Your task to perform on an android device: open chrome and create a bookmark for the current page Image 0: 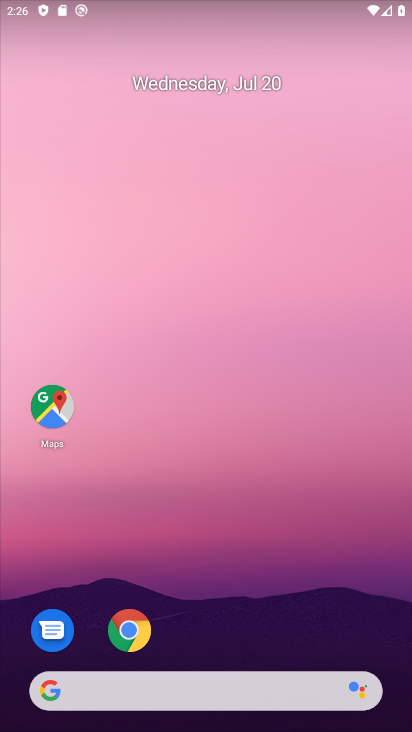
Step 0: click (139, 619)
Your task to perform on an android device: open chrome and create a bookmark for the current page Image 1: 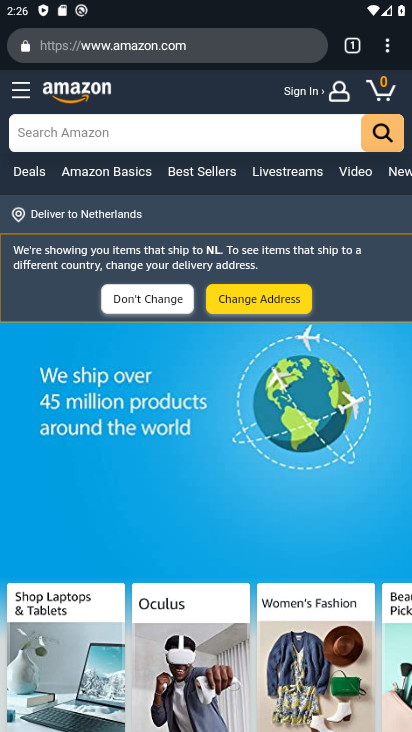
Step 1: click (391, 47)
Your task to perform on an android device: open chrome and create a bookmark for the current page Image 2: 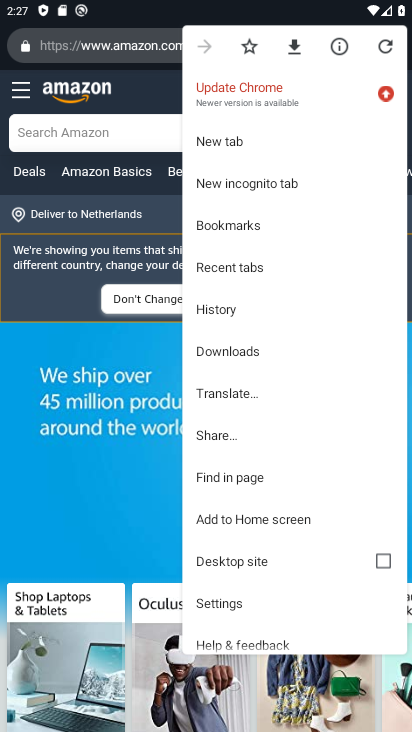
Step 2: click (258, 42)
Your task to perform on an android device: open chrome and create a bookmark for the current page Image 3: 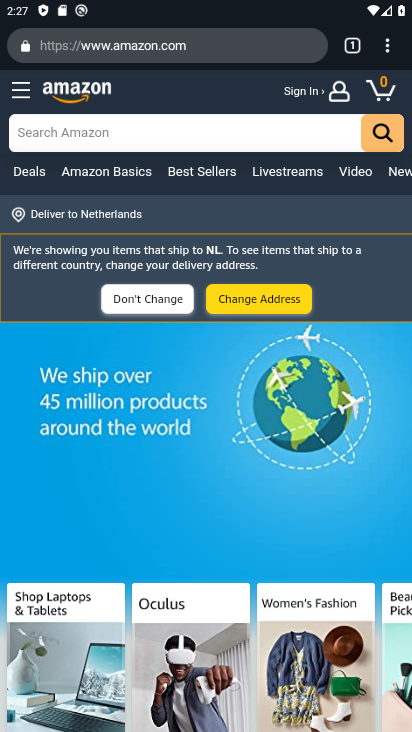
Step 3: task complete